Your task to perform on an android device: Open the web browser Image 0: 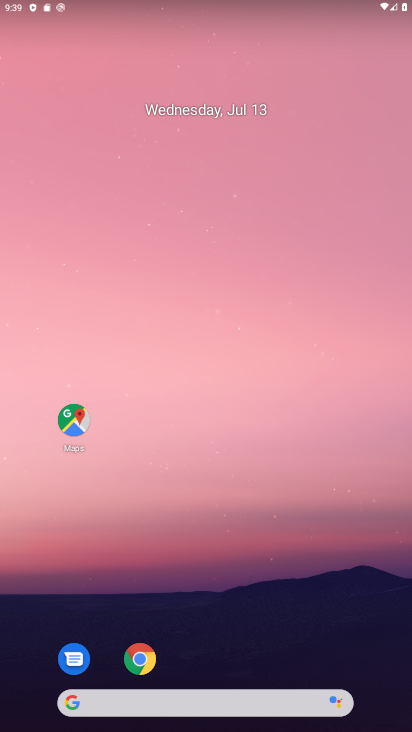
Step 0: click (141, 659)
Your task to perform on an android device: Open the web browser Image 1: 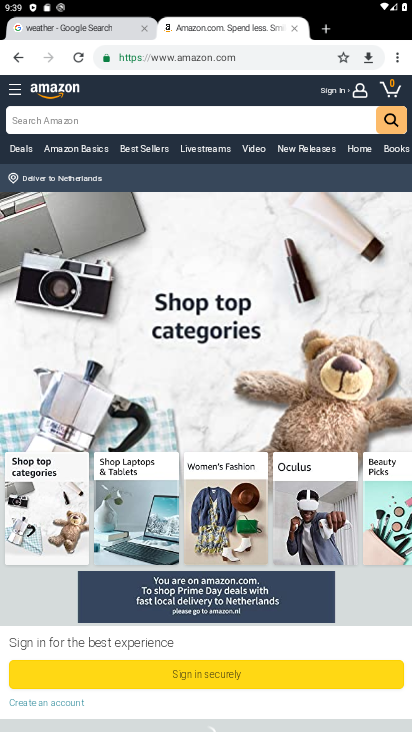
Step 1: task complete